Your task to perform on an android device: read, delete, or share a saved page in the chrome app Image 0: 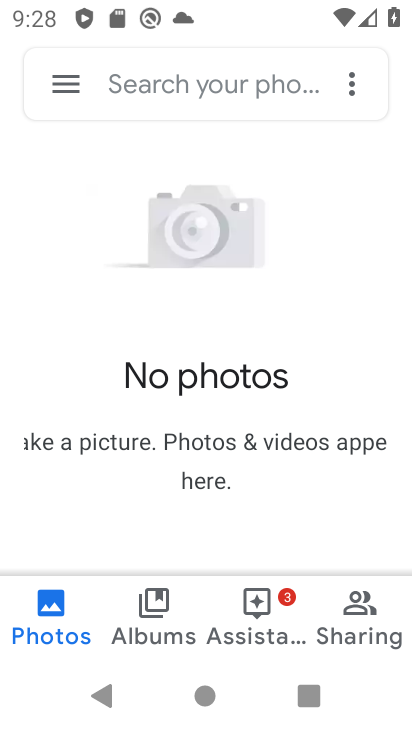
Step 0: press home button
Your task to perform on an android device: read, delete, or share a saved page in the chrome app Image 1: 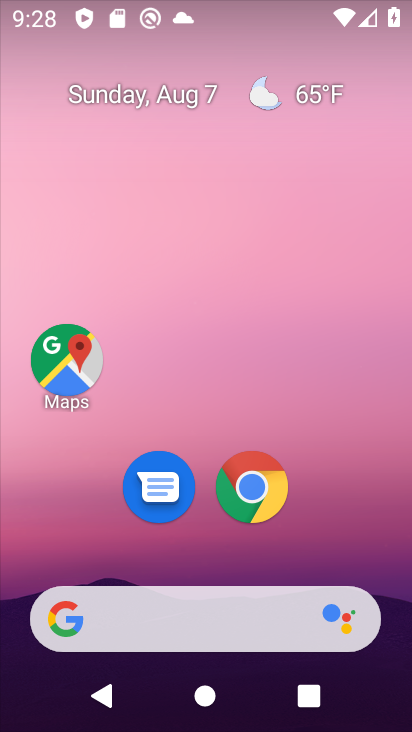
Step 1: click (256, 489)
Your task to perform on an android device: read, delete, or share a saved page in the chrome app Image 2: 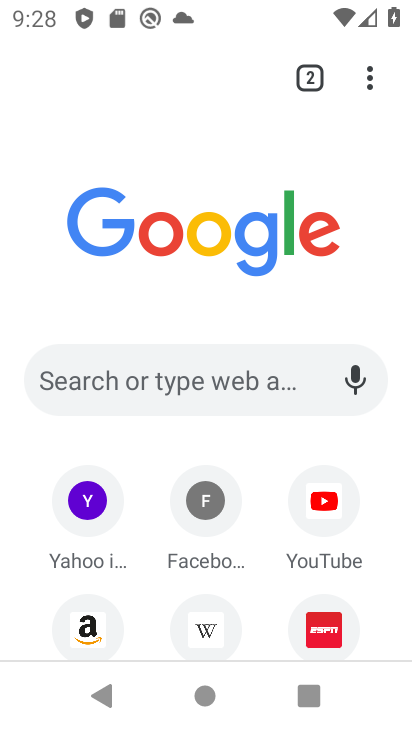
Step 2: click (371, 76)
Your task to perform on an android device: read, delete, or share a saved page in the chrome app Image 3: 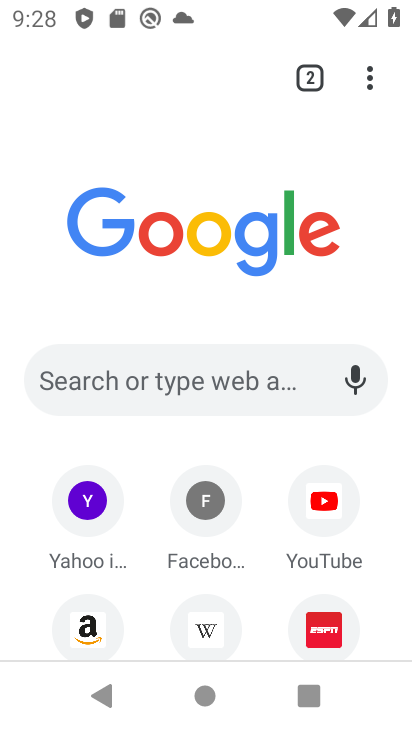
Step 3: click (361, 74)
Your task to perform on an android device: read, delete, or share a saved page in the chrome app Image 4: 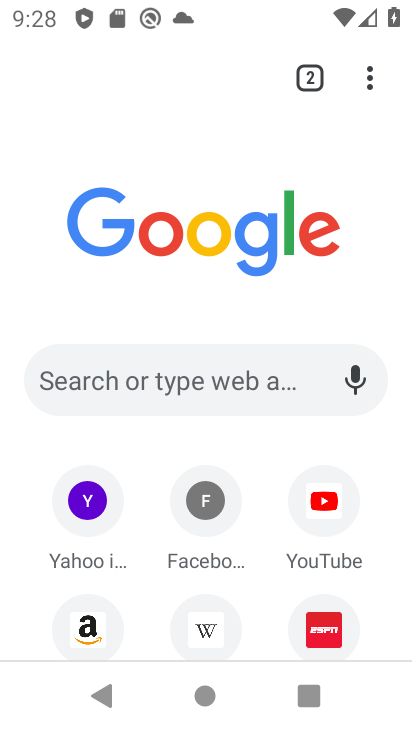
Step 4: click (363, 79)
Your task to perform on an android device: read, delete, or share a saved page in the chrome app Image 5: 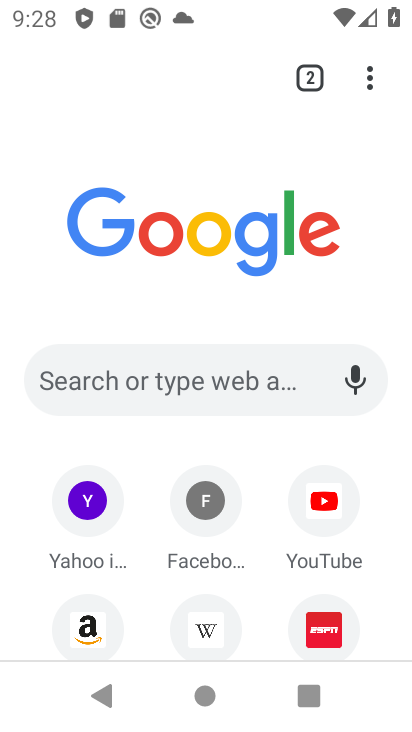
Step 5: click (363, 79)
Your task to perform on an android device: read, delete, or share a saved page in the chrome app Image 6: 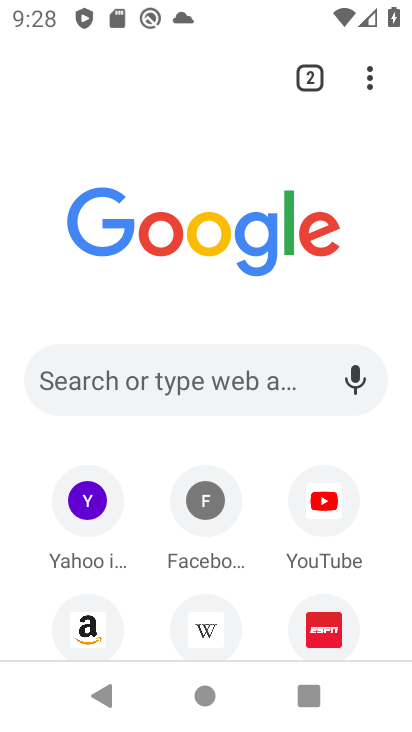
Step 6: click (363, 79)
Your task to perform on an android device: read, delete, or share a saved page in the chrome app Image 7: 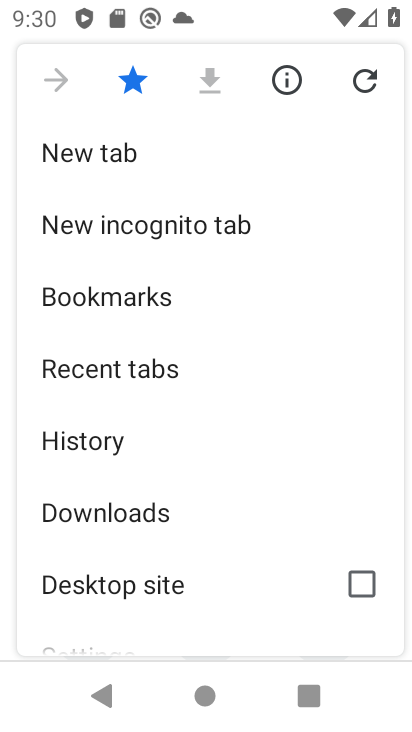
Step 7: click (90, 507)
Your task to perform on an android device: read, delete, or share a saved page in the chrome app Image 8: 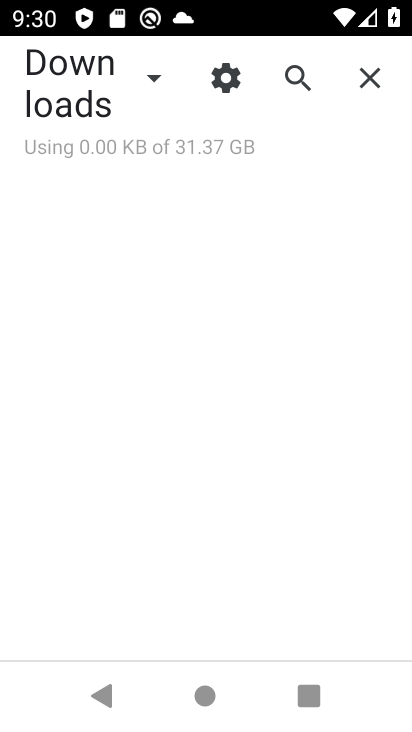
Step 8: task complete